Your task to perform on an android device: Open Chrome and go to the settings page Image 0: 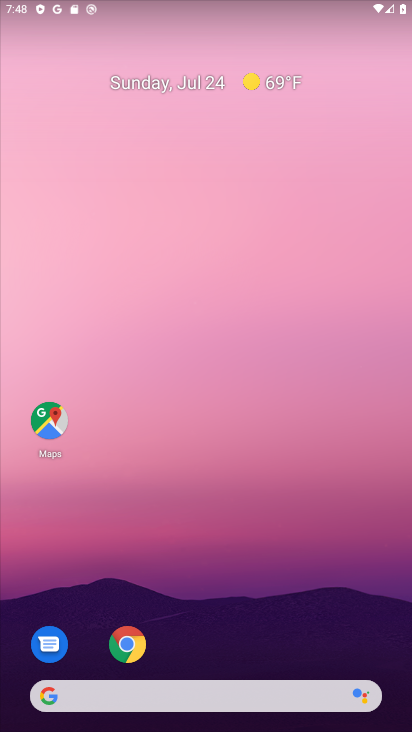
Step 0: drag from (181, 691) to (180, 281)
Your task to perform on an android device: Open Chrome and go to the settings page Image 1: 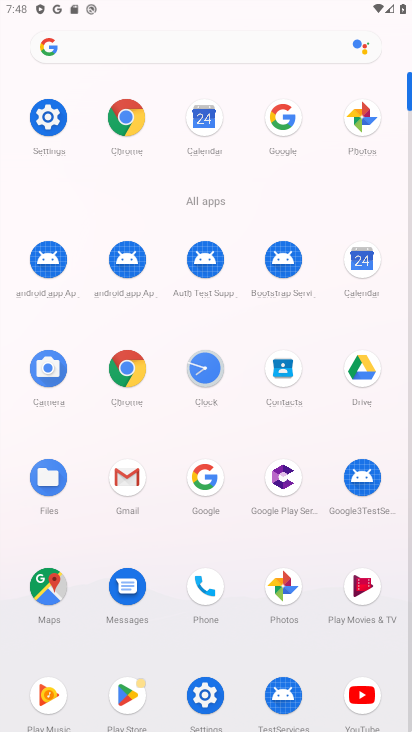
Step 1: click (124, 363)
Your task to perform on an android device: Open Chrome and go to the settings page Image 2: 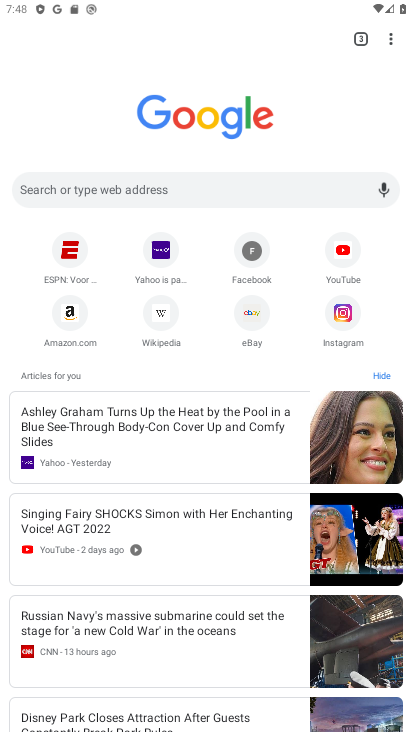
Step 2: click (387, 39)
Your task to perform on an android device: Open Chrome and go to the settings page Image 3: 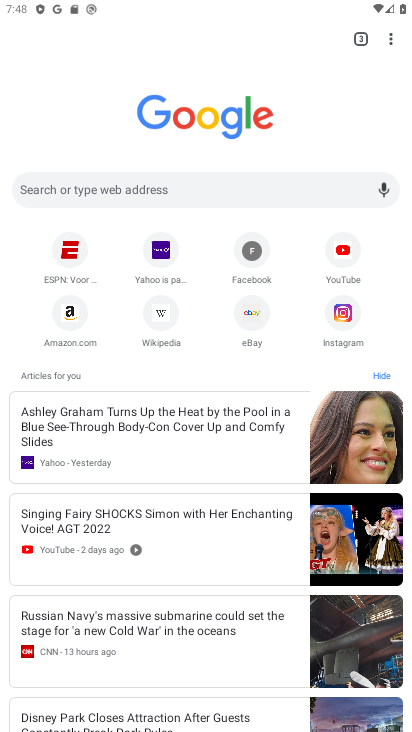
Step 3: click (392, 42)
Your task to perform on an android device: Open Chrome and go to the settings page Image 4: 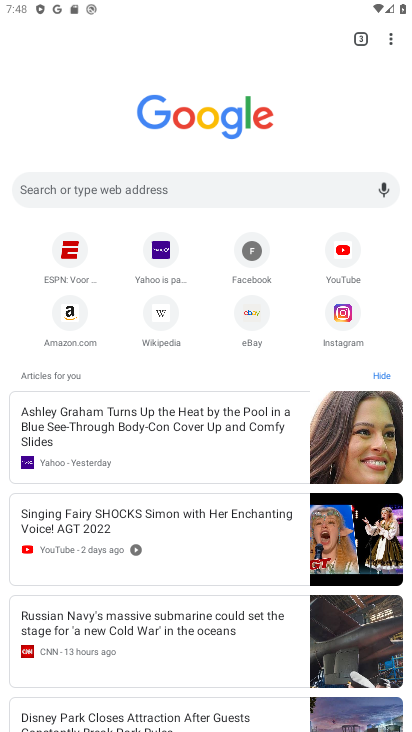
Step 4: click (392, 34)
Your task to perform on an android device: Open Chrome and go to the settings page Image 5: 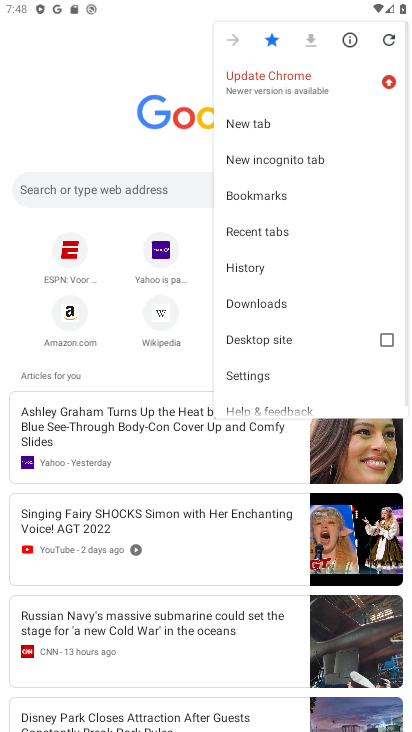
Step 5: click (239, 382)
Your task to perform on an android device: Open Chrome and go to the settings page Image 6: 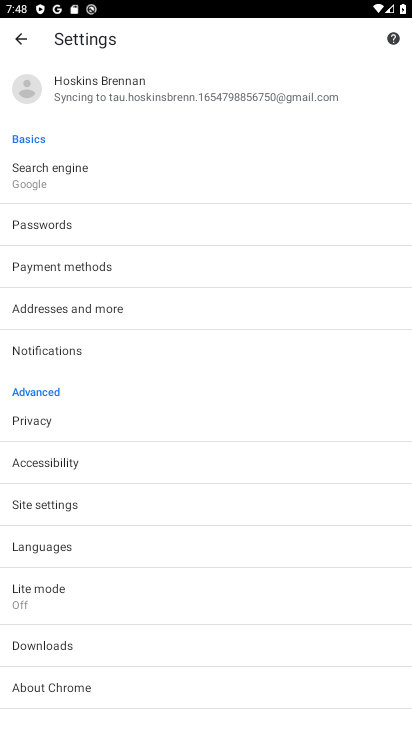
Step 6: task complete